Your task to perform on an android device: Turn off the flashlight Image 0: 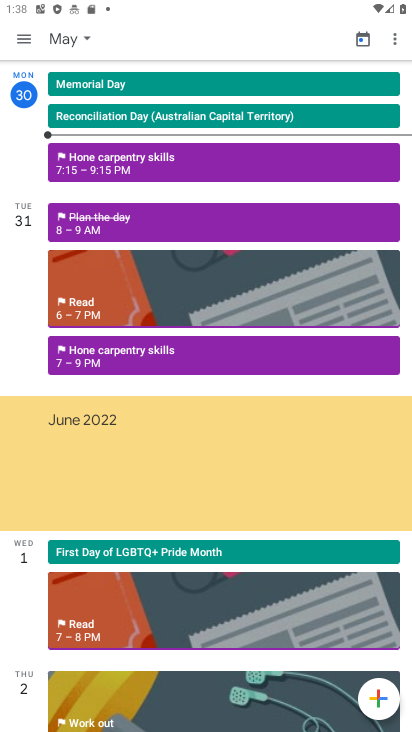
Step 0: press home button
Your task to perform on an android device: Turn off the flashlight Image 1: 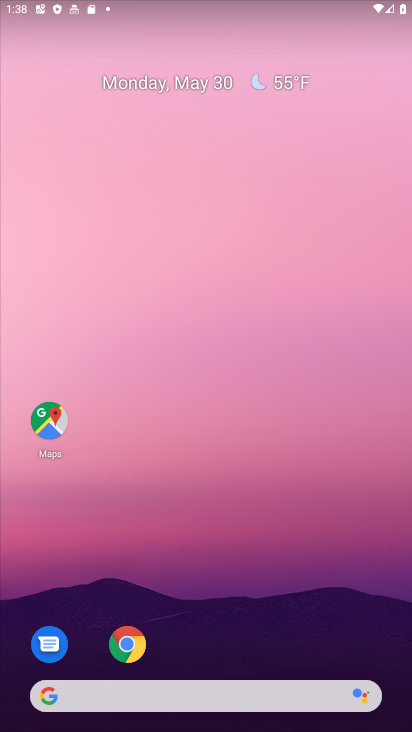
Step 1: drag from (265, 644) to (130, 18)
Your task to perform on an android device: Turn off the flashlight Image 2: 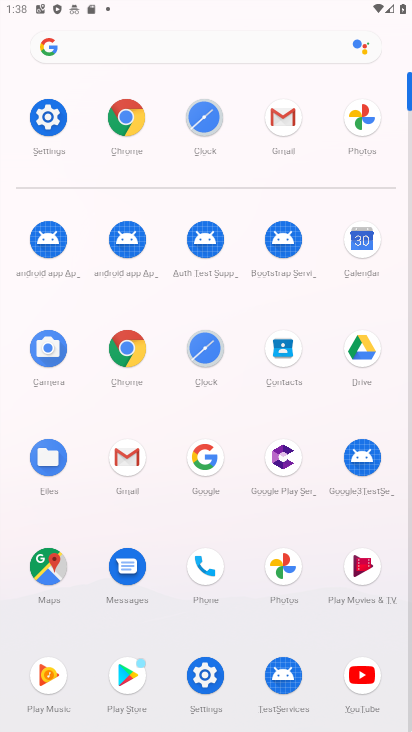
Step 2: click (62, 107)
Your task to perform on an android device: Turn off the flashlight Image 3: 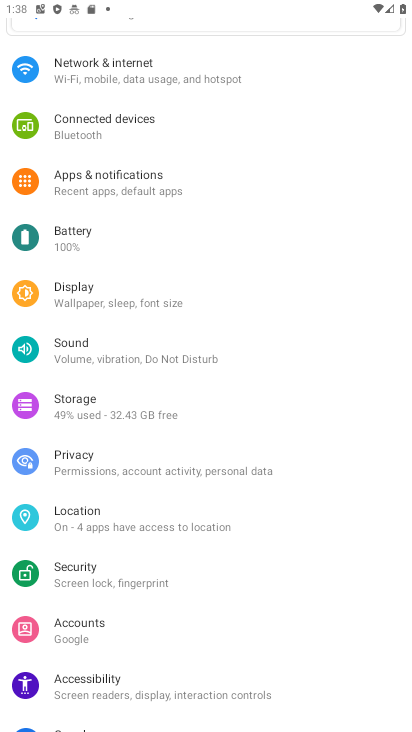
Step 3: click (156, 238)
Your task to perform on an android device: Turn off the flashlight Image 4: 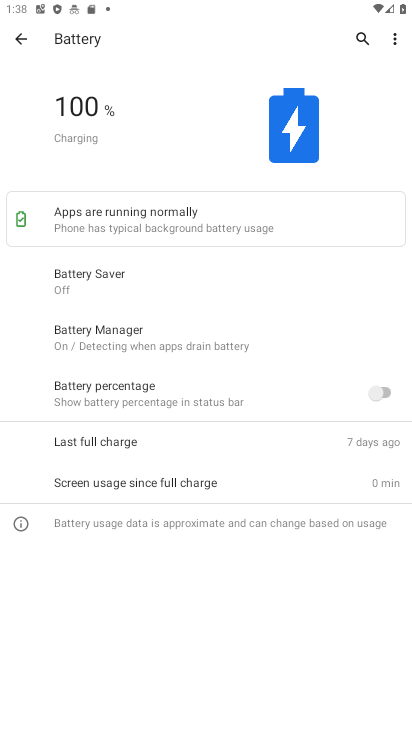
Step 4: task complete